Your task to perform on an android device: turn off notifications settings in the gmail app Image 0: 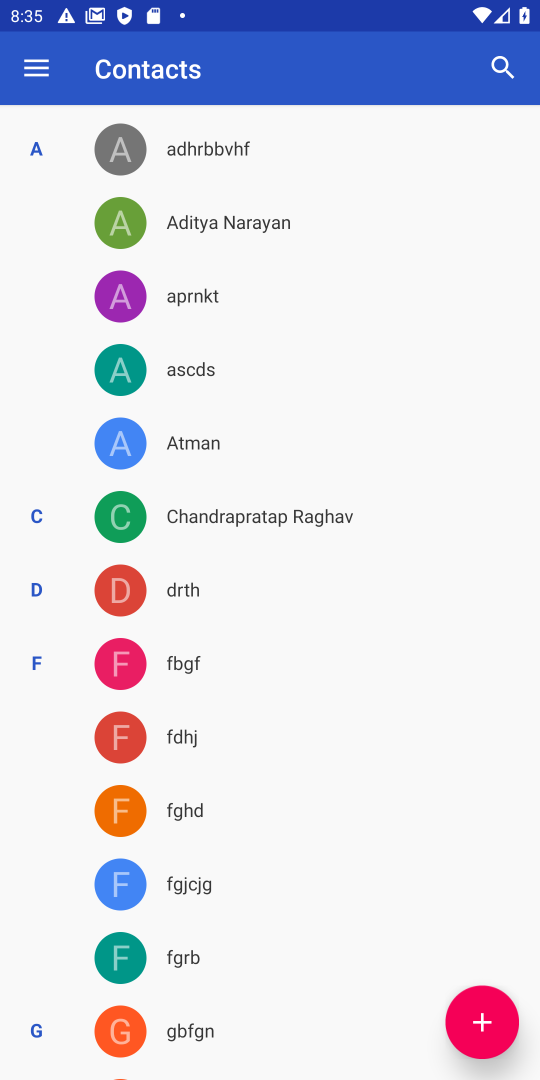
Step 0: press home button
Your task to perform on an android device: turn off notifications settings in the gmail app Image 1: 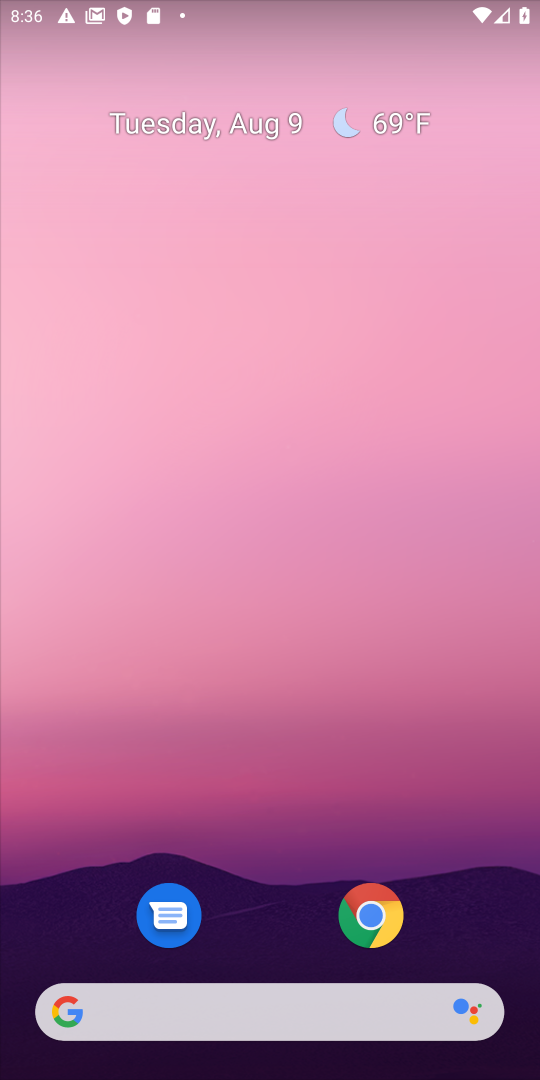
Step 1: drag from (242, 919) to (268, 188)
Your task to perform on an android device: turn off notifications settings in the gmail app Image 2: 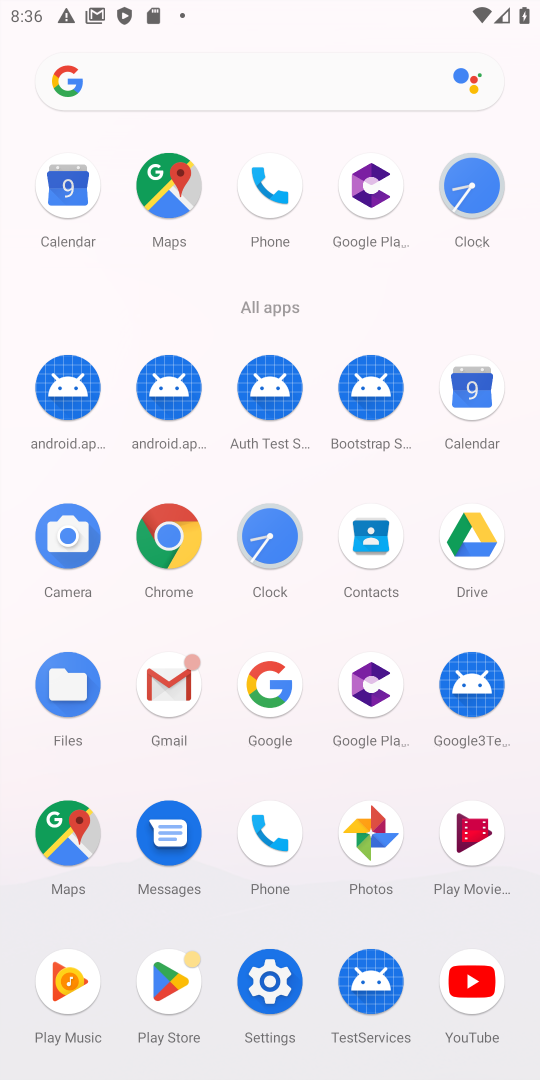
Step 2: click (163, 687)
Your task to perform on an android device: turn off notifications settings in the gmail app Image 3: 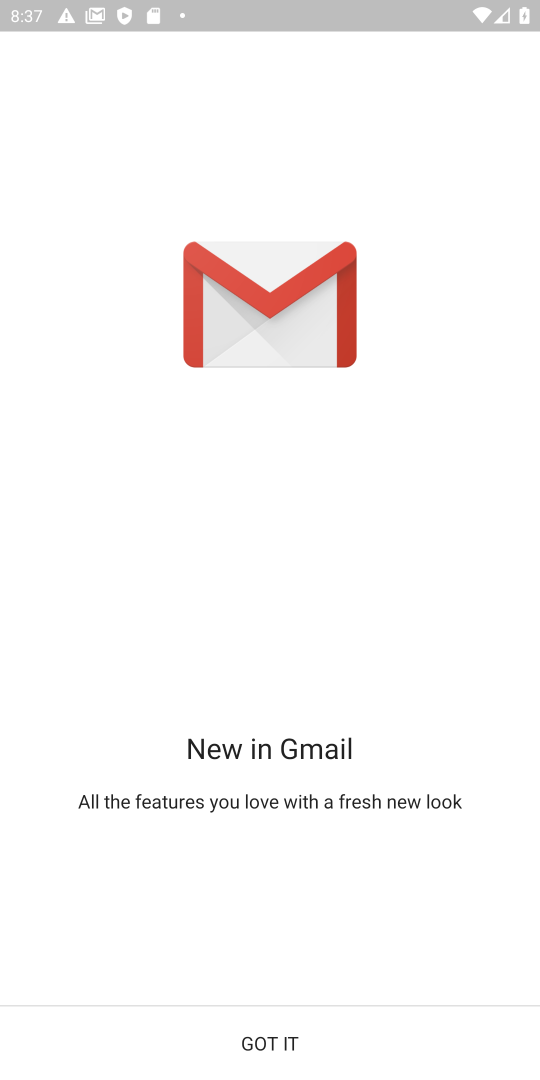
Step 3: click (328, 1054)
Your task to perform on an android device: turn off notifications settings in the gmail app Image 4: 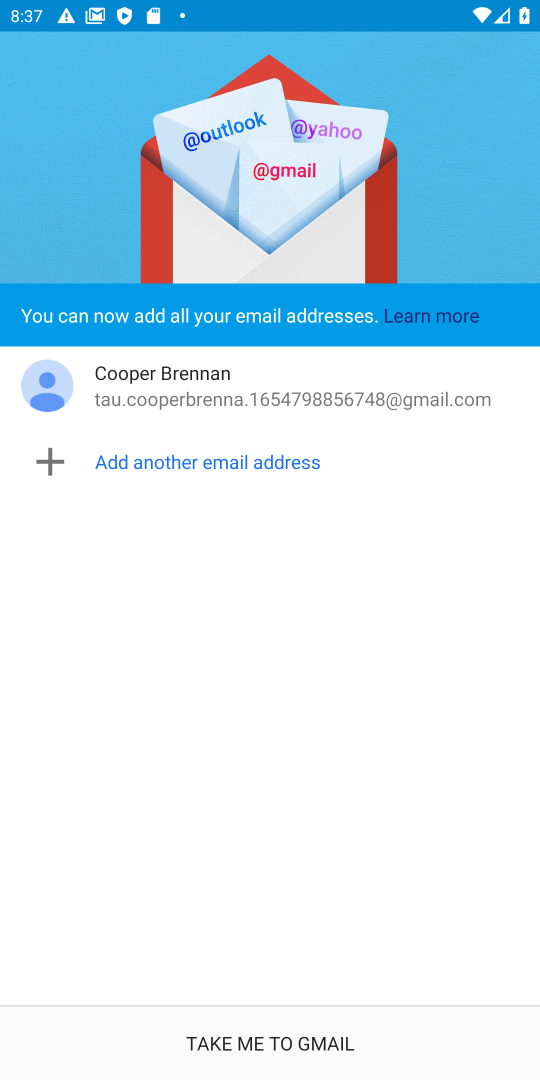
Step 4: click (383, 1024)
Your task to perform on an android device: turn off notifications settings in the gmail app Image 5: 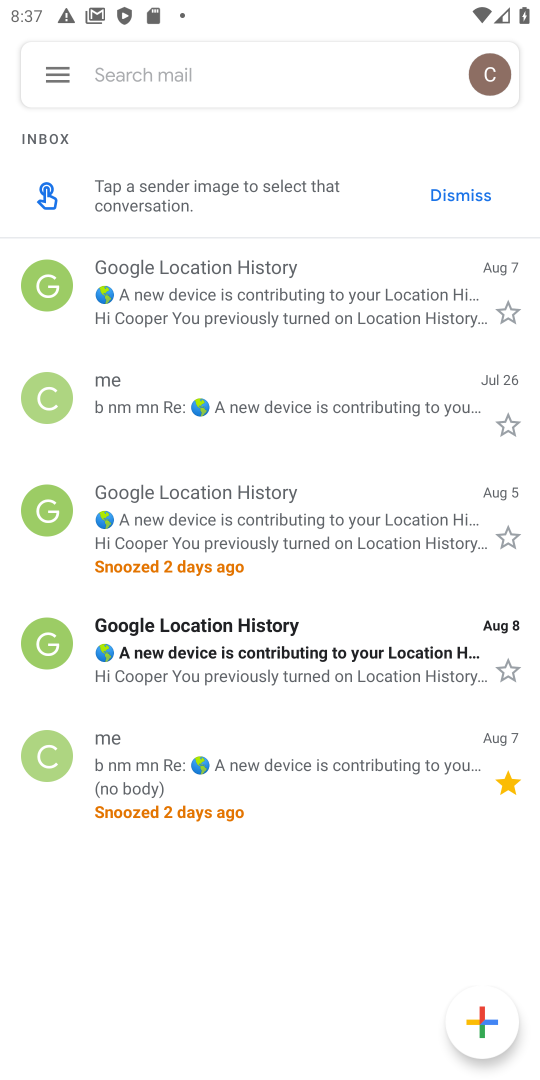
Step 5: click (55, 77)
Your task to perform on an android device: turn off notifications settings in the gmail app Image 6: 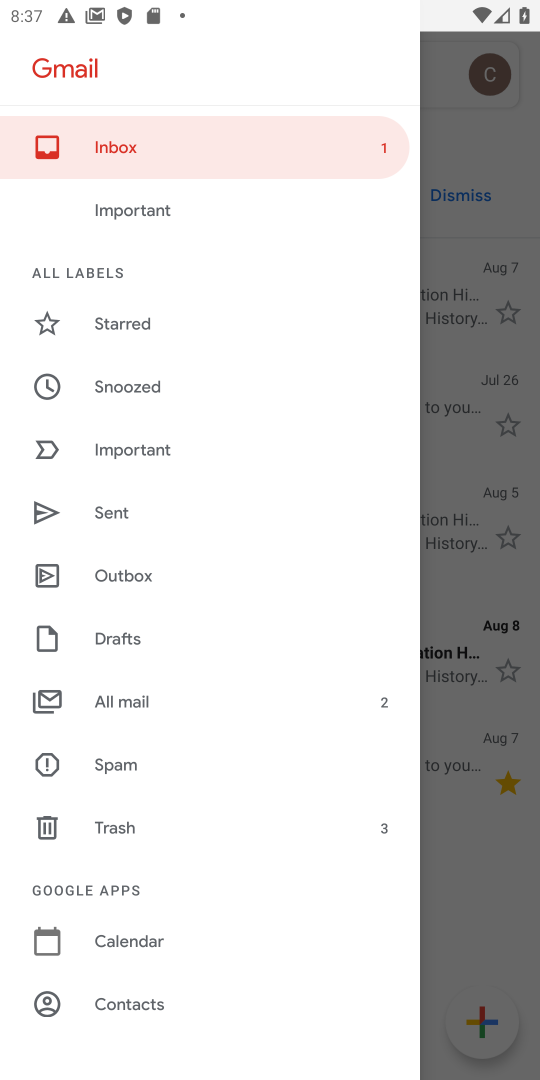
Step 6: drag from (207, 970) to (201, 499)
Your task to perform on an android device: turn off notifications settings in the gmail app Image 7: 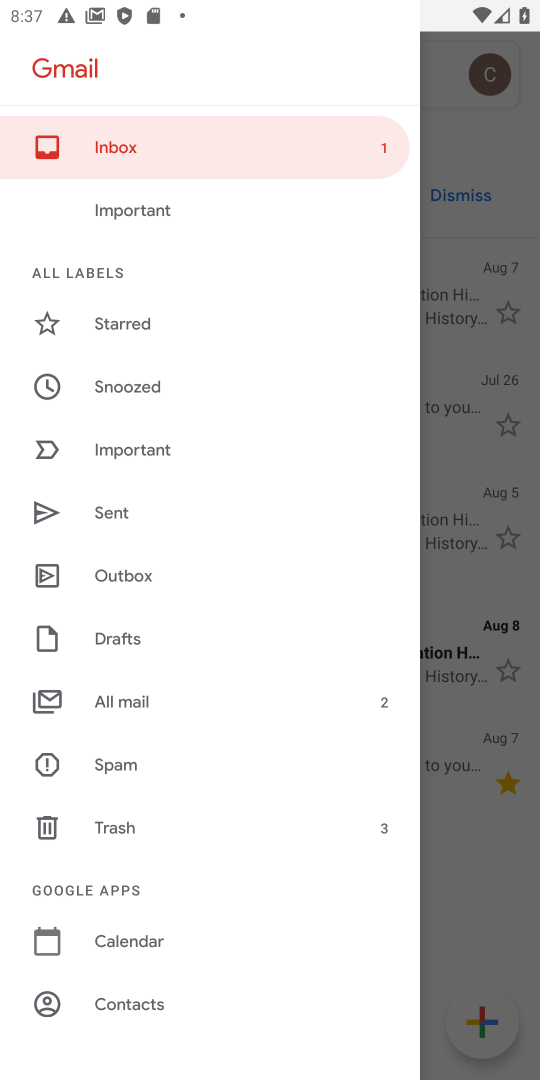
Step 7: drag from (232, 850) to (257, 558)
Your task to perform on an android device: turn off notifications settings in the gmail app Image 8: 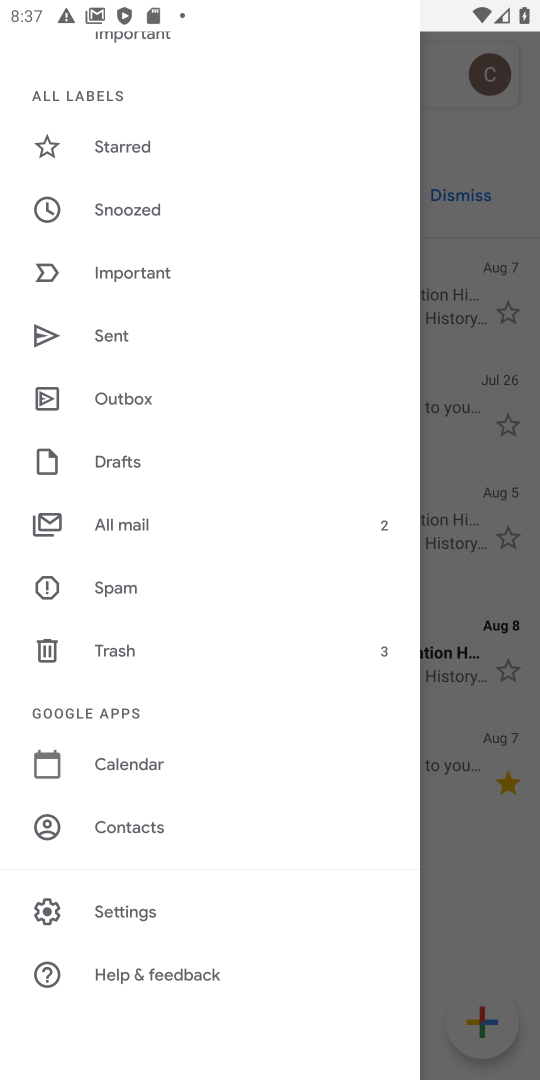
Step 8: click (136, 912)
Your task to perform on an android device: turn off notifications settings in the gmail app Image 9: 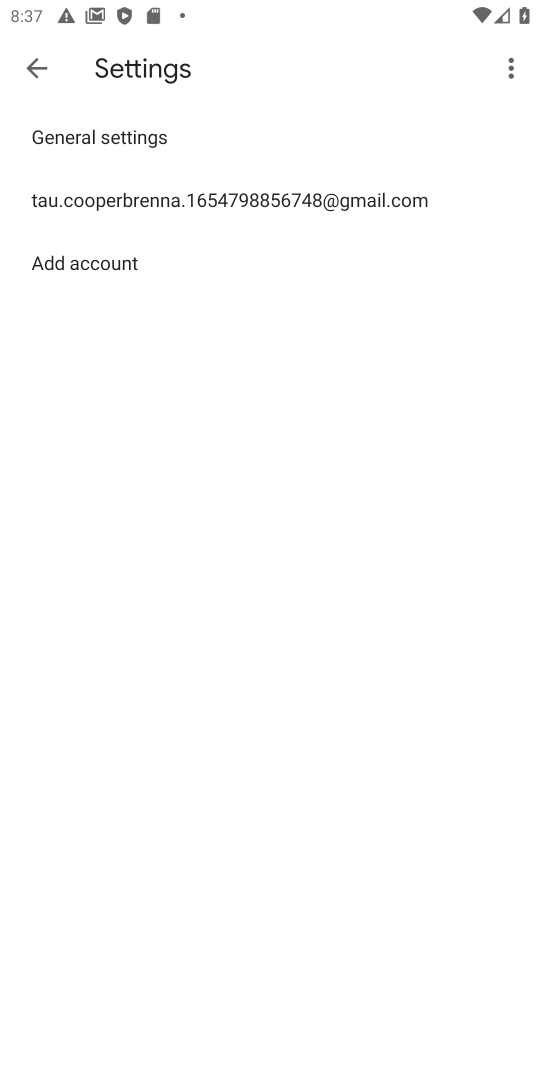
Step 9: click (110, 130)
Your task to perform on an android device: turn off notifications settings in the gmail app Image 10: 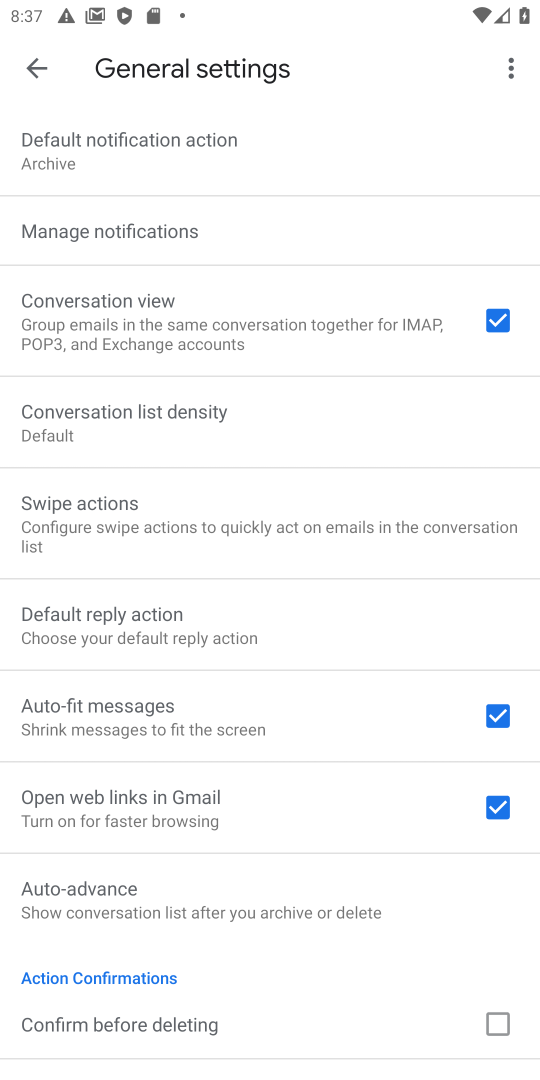
Step 10: click (100, 240)
Your task to perform on an android device: turn off notifications settings in the gmail app Image 11: 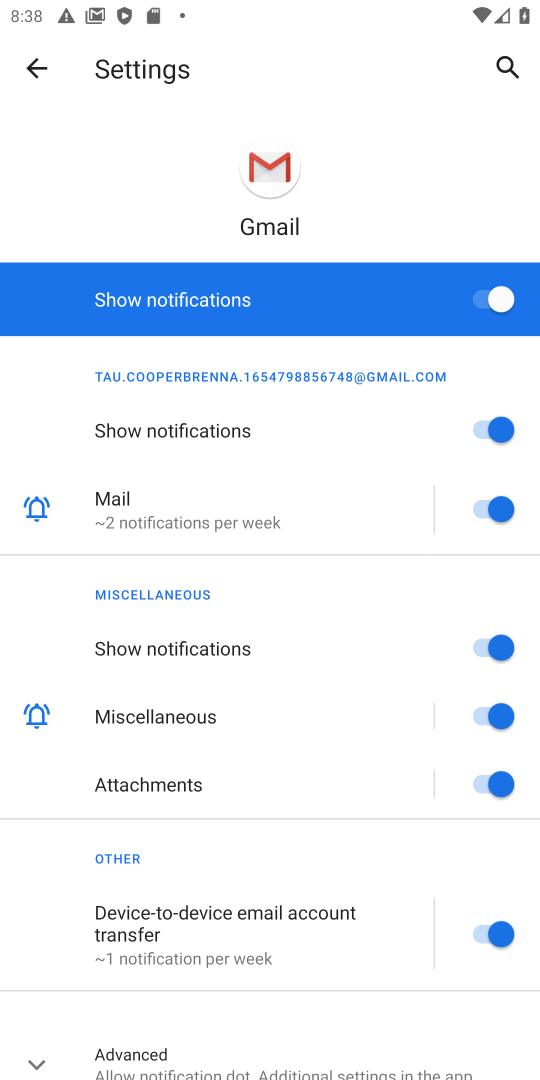
Step 11: click (492, 301)
Your task to perform on an android device: turn off notifications settings in the gmail app Image 12: 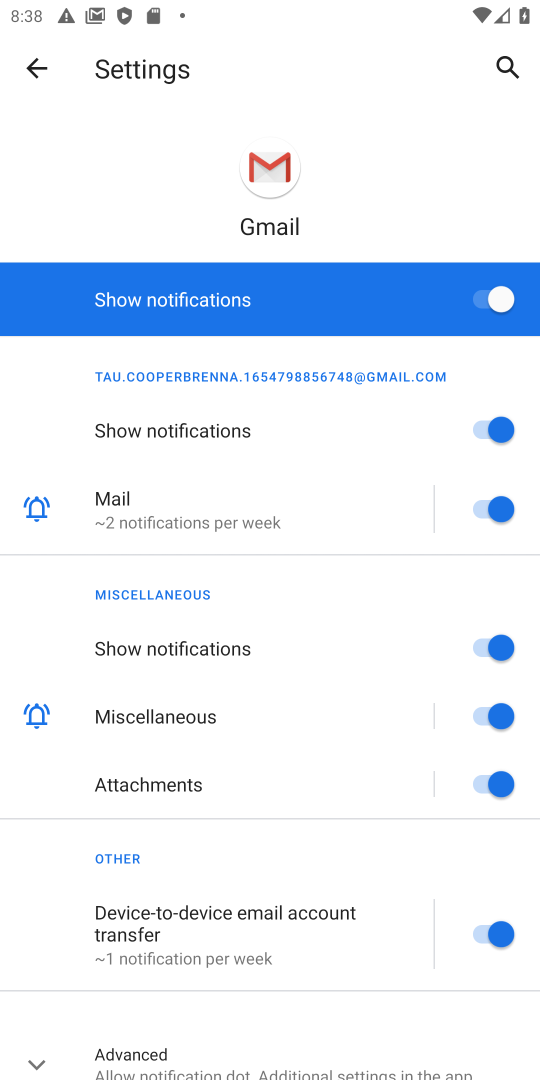
Step 12: click (492, 301)
Your task to perform on an android device: turn off notifications settings in the gmail app Image 13: 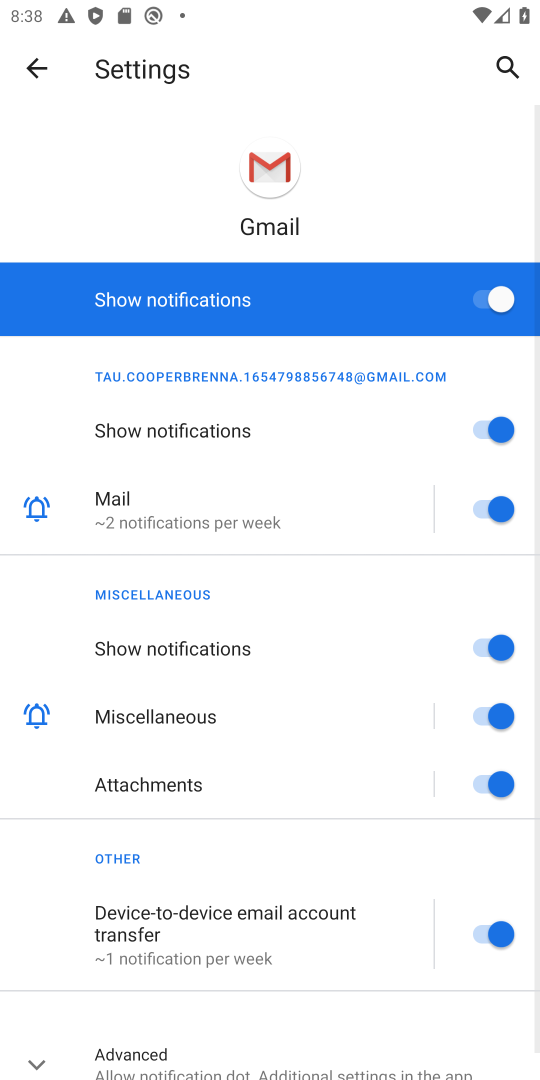
Step 13: click (492, 301)
Your task to perform on an android device: turn off notifications settings in the gmail app Image 14: 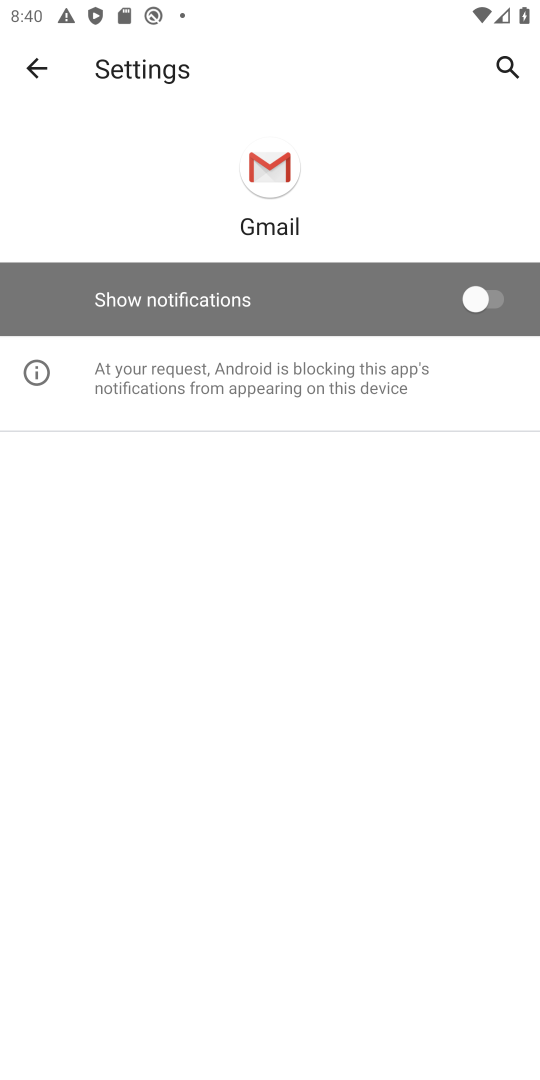
Step 14: task complete